Your task to perform on an android device: Go to Maps Image 0: 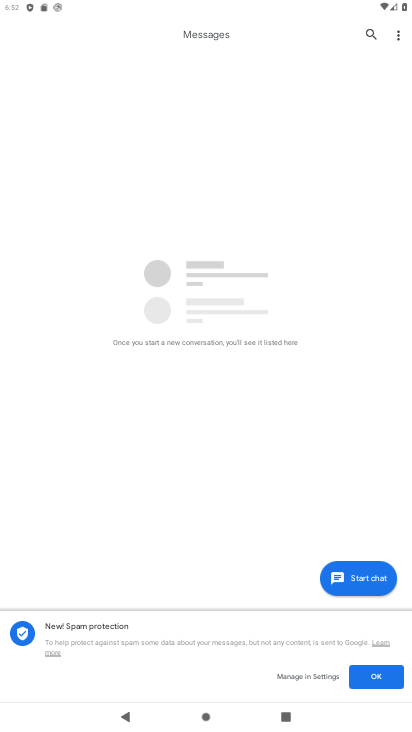
Step 0: press home button
Your task to perform on an android device: Go to Maps Image 1: 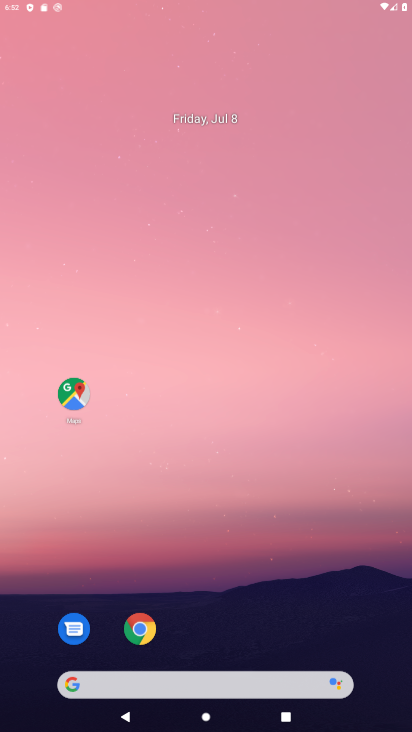
Step 1: drag from (281, 654) to (279, 1)
Your task to perform on an android device: Go to Maps Image 2: 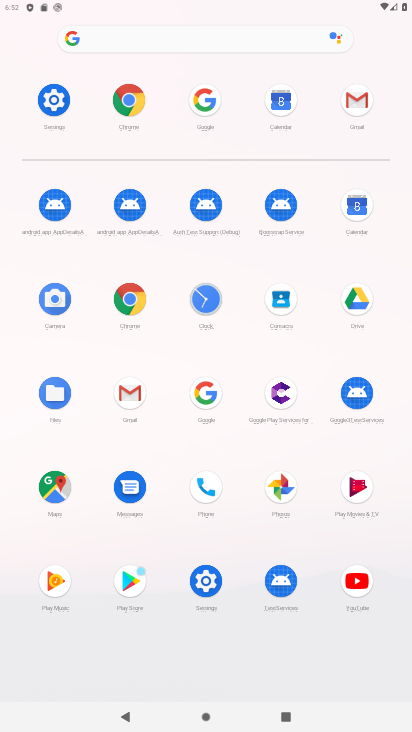
Step 2: click (58, 486)
Your task to perform on an android device: Go to Maps Image 3: 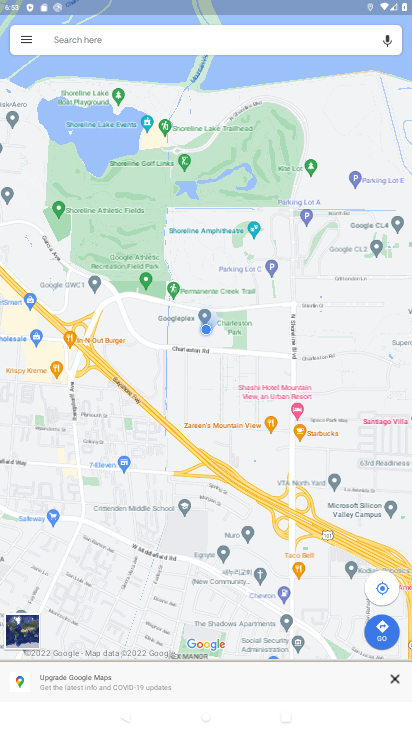
Step 3: task complete